Your task to perform on an android device: Is it going to rain this weekend? Image 0: 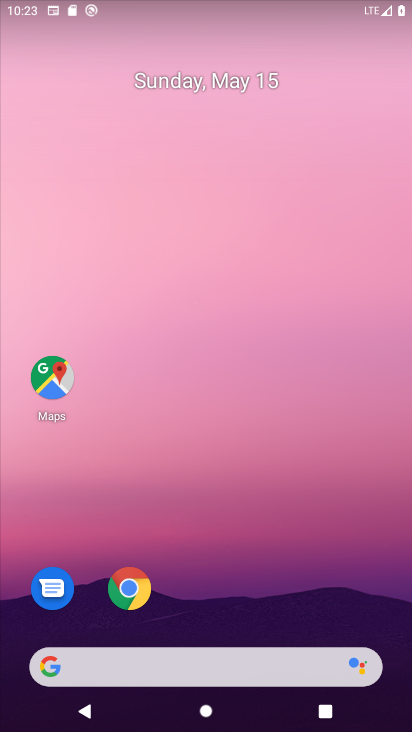
Step 0: click (160, 667)
Your task to perform on an android device: Is it going to rain this weekend? Image 1: 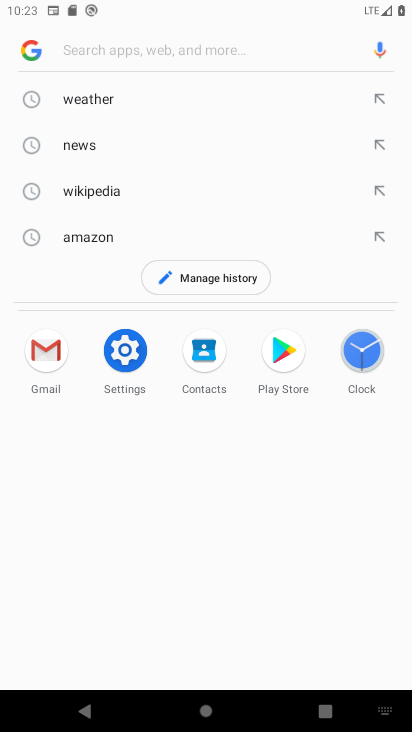
Step 1: click (125, 98)
Your task to perform on an android device: Is it going to rain this weekend? Image 2: 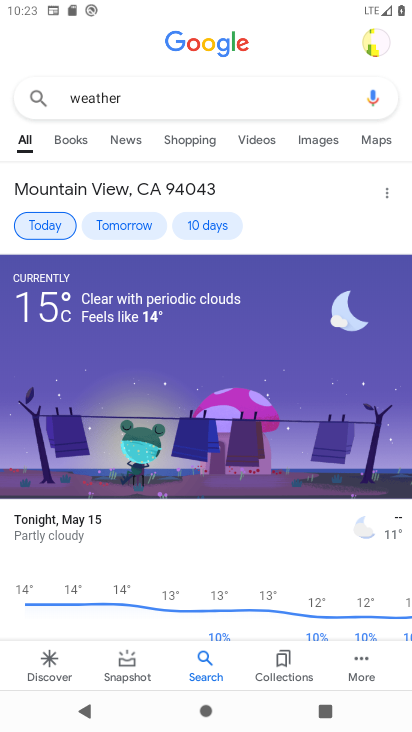
Step 2: click (209, 224)
Your task to perform on an android device: Is it going to rain this weekend? Image 3: 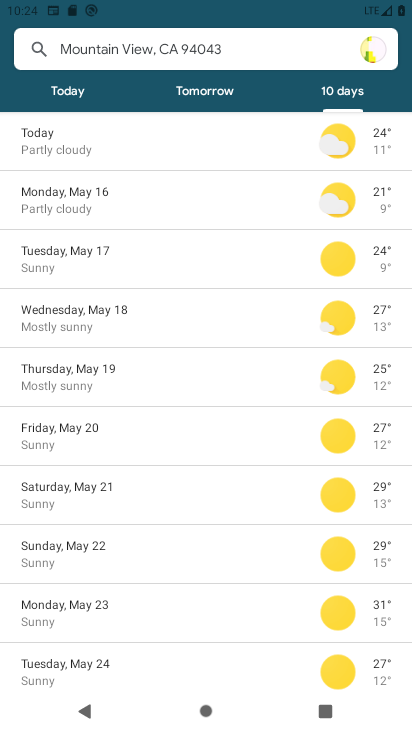
Step 3: task complete